Your task to perform on an android device: What's the weather? Image 0: 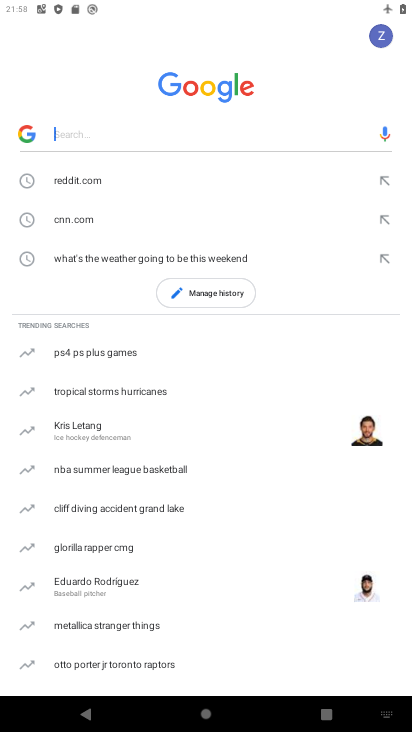
Step 0: type "weather"
Your task to perform on an android device: What's the weather? Image 1: 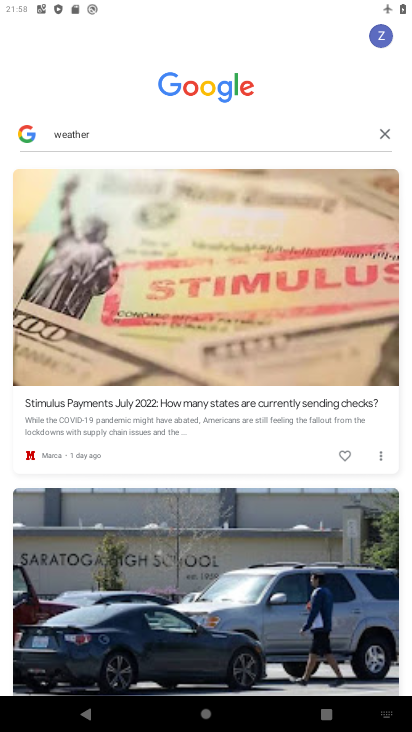
Step 1: task complete